Your task to perform on an android device: turn pop-ups on in chrome Image 0: 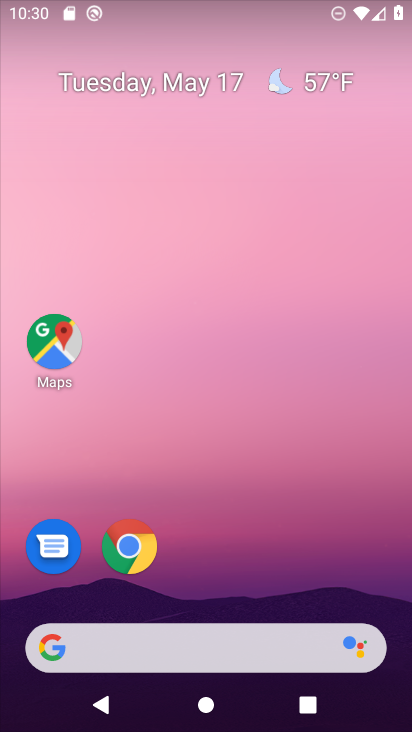
Step 0: click (132, 544)
Your task to perform on an android device: turn pop-ups on in chrome Image 1: 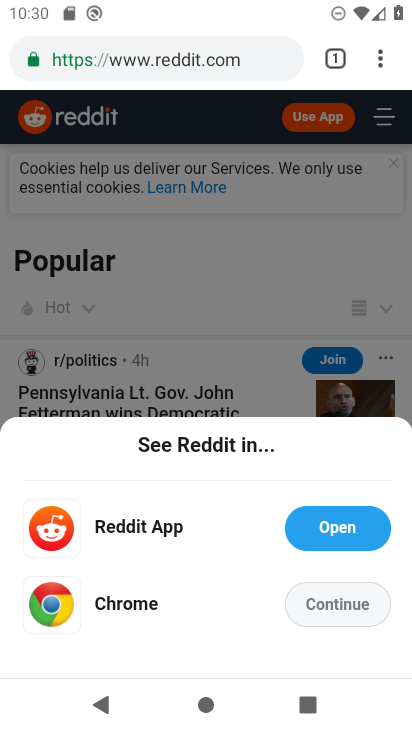
Step 1: click (378, 60)
Your task to perform on an android device: turn pop-ups on in chrome Image 2: 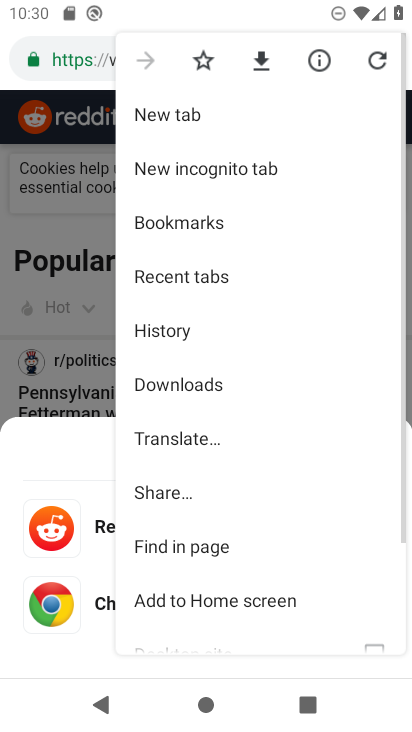
Step 2: drag from (219, 504) to (207, 70)
Your task to perform on an android device: turn pop-ups on in chrome Image 3: 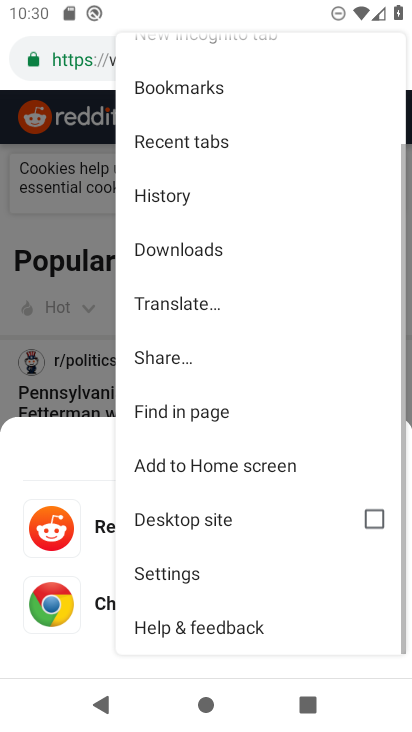
Step 3: click (183, 577)
Your task to perform on an android device: turn pop-ups on in chrome Image 4: 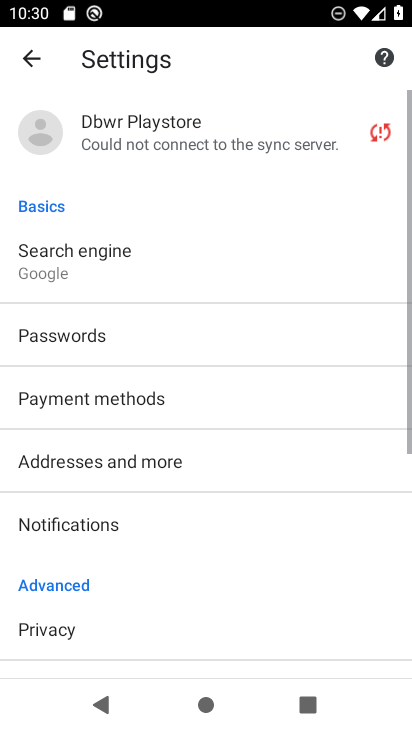
Step 4: drag from (183, 577) to (184, 180)
Your task to perform on an android device: turn pop-ups on in chrome Image 5: 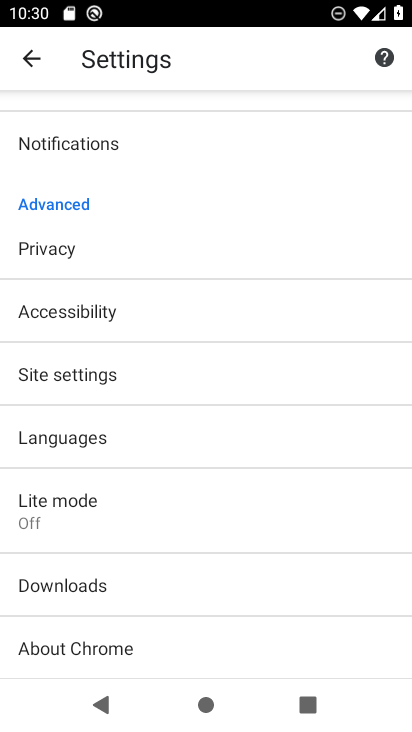
Step 5: click (86, 378)
Your task to perform on an android device: turn pop-ups on in chrome Image 6: 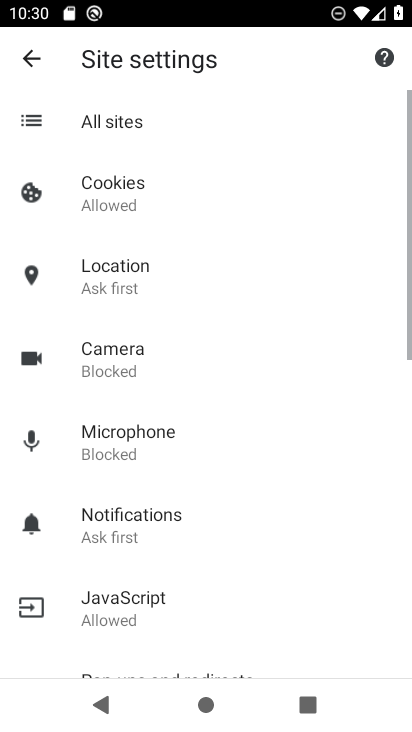
Step 6: drag from (188, 580) to (173, 231)
Your task to perform on an android device: turn pop-ups on in chrome Image 7: 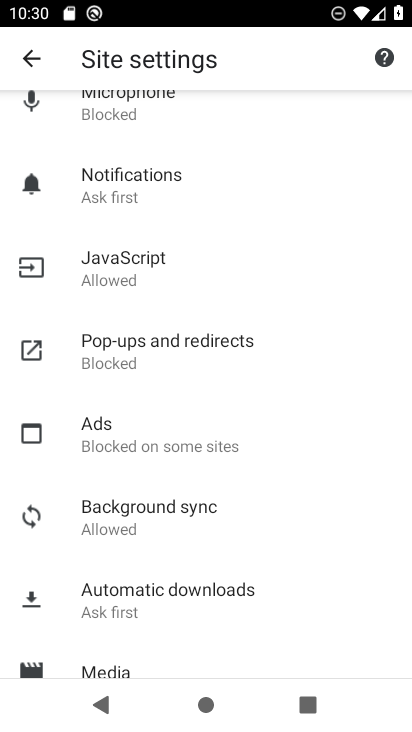
Step 7: click (115, 348)
Your task to perform on an android device: turn pop-ups on in chrome Image 8: 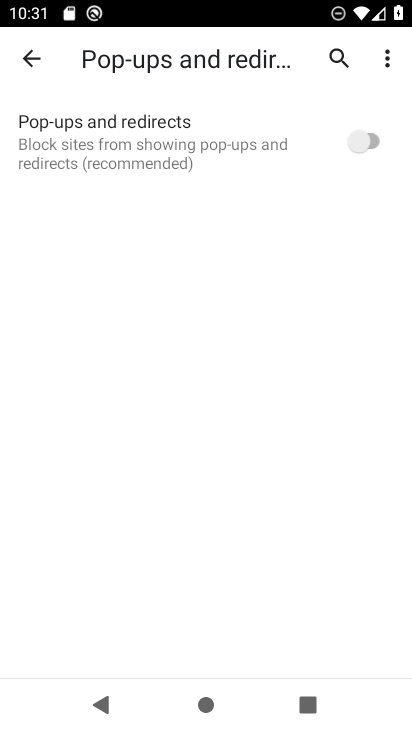
Step 8: click (362, 134)
Your task to perform on an android device: turn pop-ups on in chrome Image 9: 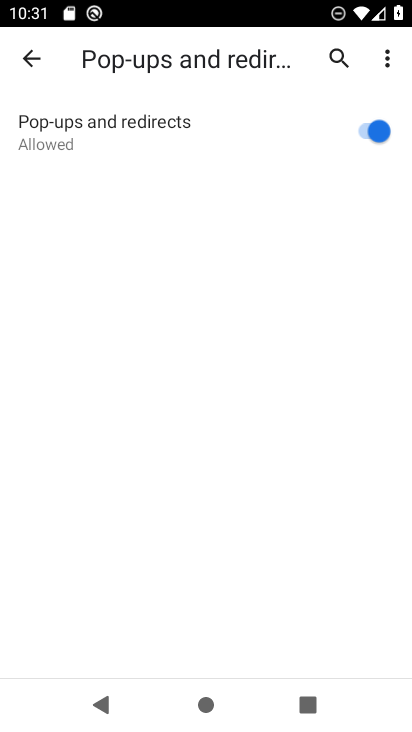
Step 9: task complete